Your task to perform on an android device: find snoozed emails in the gmail app Image 0: 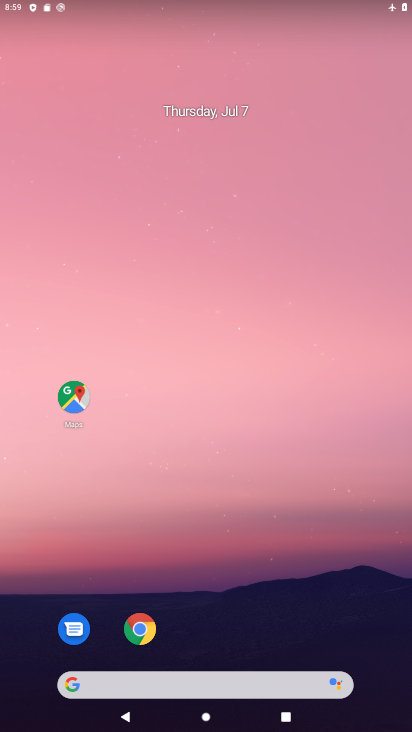
Step 0: drag from (217, 611) to (211, 197)
Your task to perform on an android device: find snoozed emails in the gmail app Image 1: 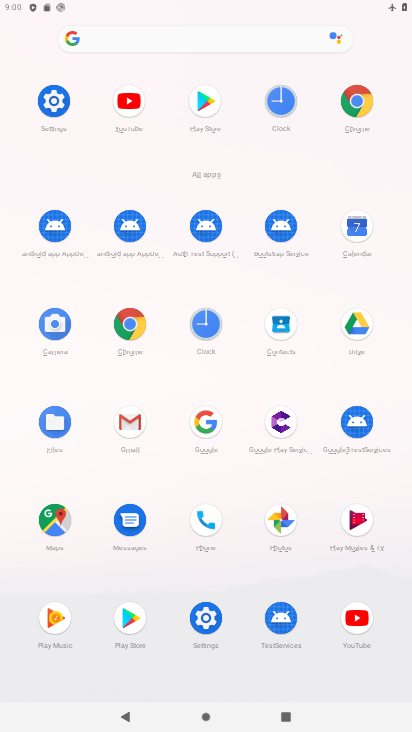
Step 1: click (134, 414)
Your task to perform on an android device: find snoozed emails in the gmail app Image 2: 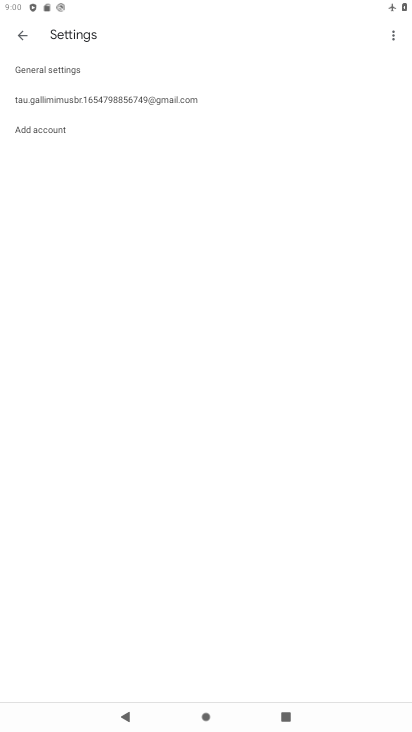
Step 2: click (25, 36)
Your task to perform on an android device: find snoozed emails in the gmail app Image 3: 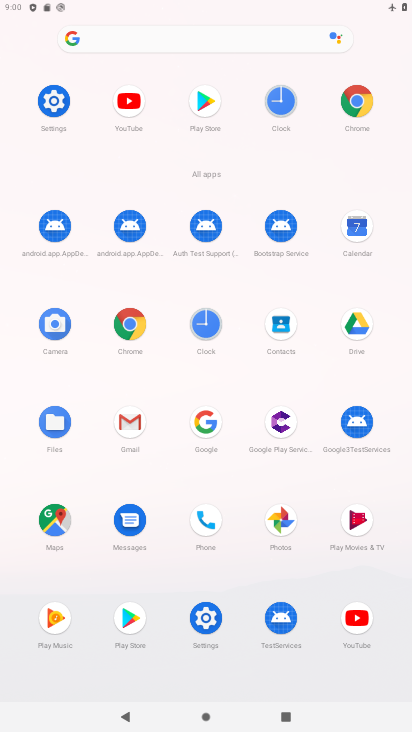
Step 3: click (130, 422)
Your task to perform on an android device: find snoozed emails in the gmail app Image 4: 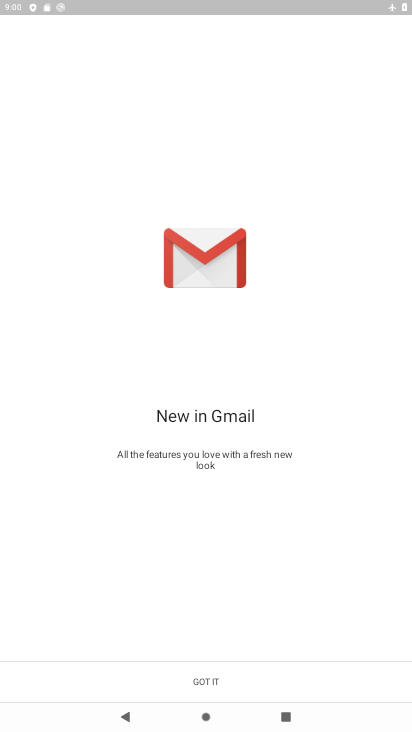
Step 4: click (206, 673)
Your task to perform on an android device: find snoozed emails in the gmail app Image 5: 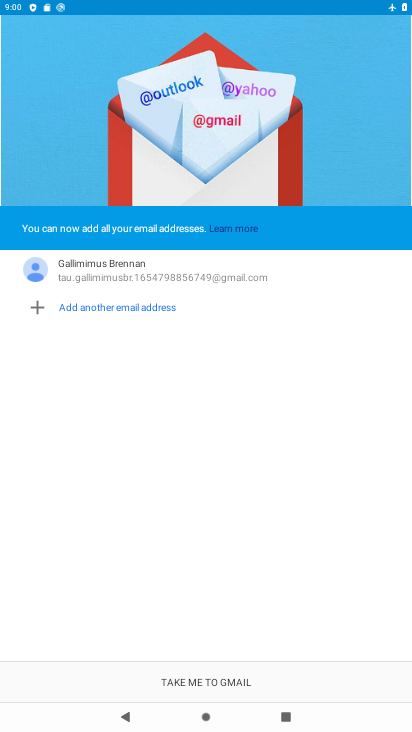
Step 5: click (197, 680)
Your task to perform on an android device: find snoozed emails in the gmail app Image 6: 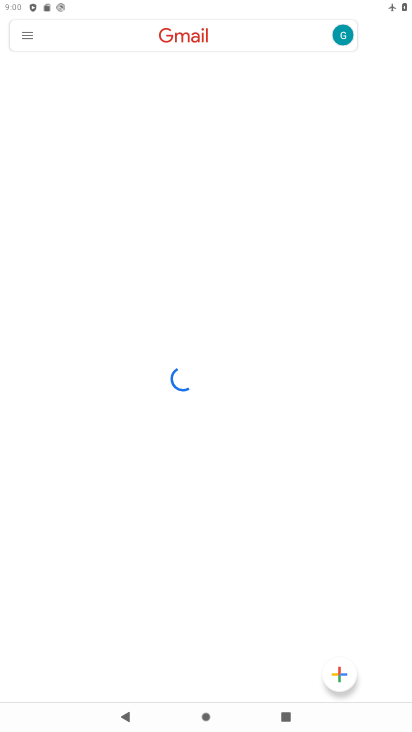
Step 6: click (28, 31)
Your task to perform on an android device: find snoozed emails in the gmail app Image 7: 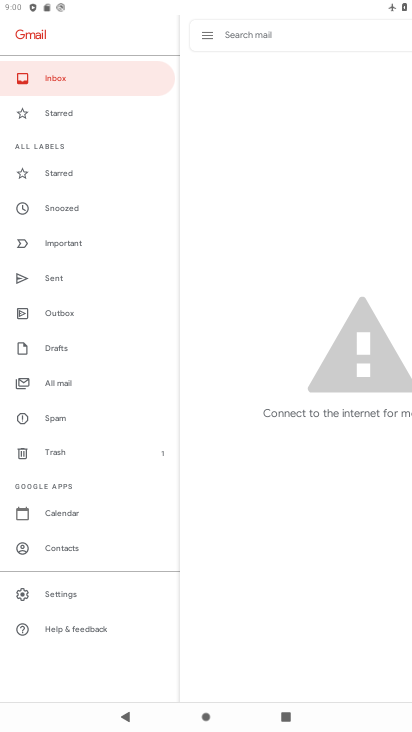
Step 7: click (68, 210)
Your task to perform on an android device: find snoozed emails in the gmail app Image 8: 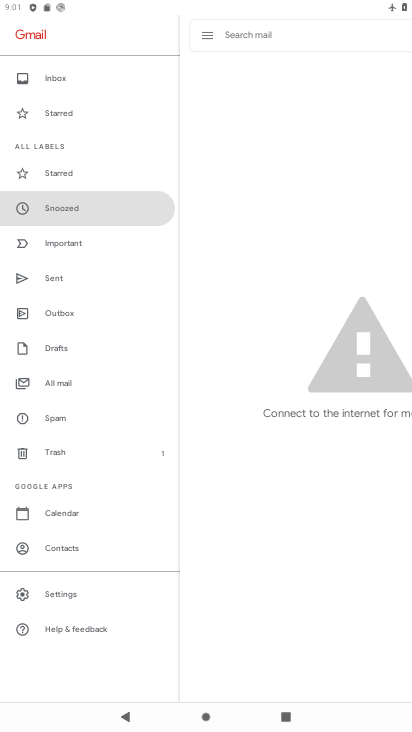
Step 8: task complete